Your task to perform on an android device: Open Chrome and go to settings Image 0: 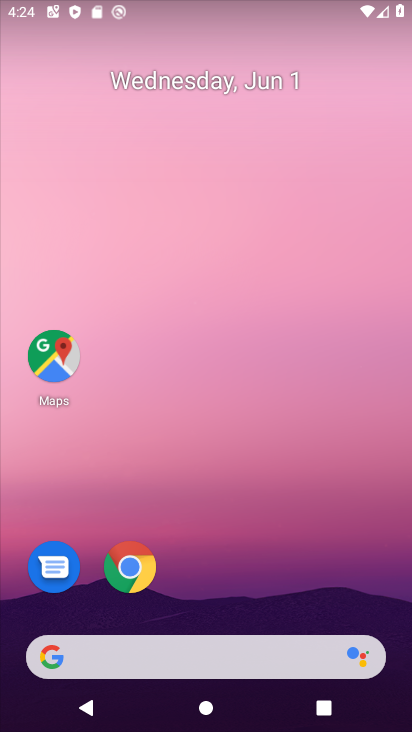
Step 0: press home button
Your task to perform on an android device: Open Chrome and go to settings Image 1: 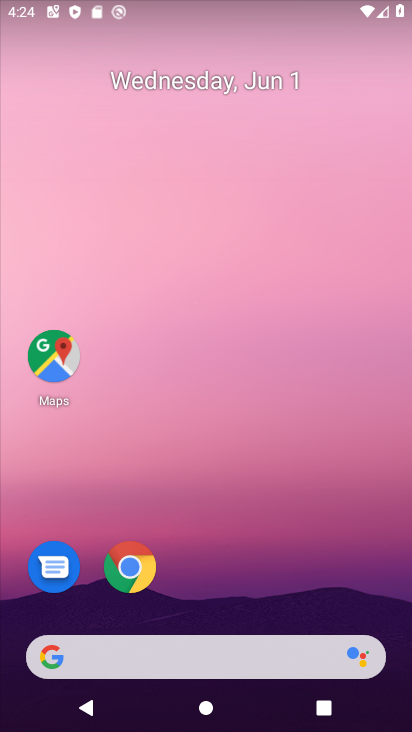
Step 1: click (118, 569)
Your task to perform on an android device: Open Chrome and go to settings Image 2: 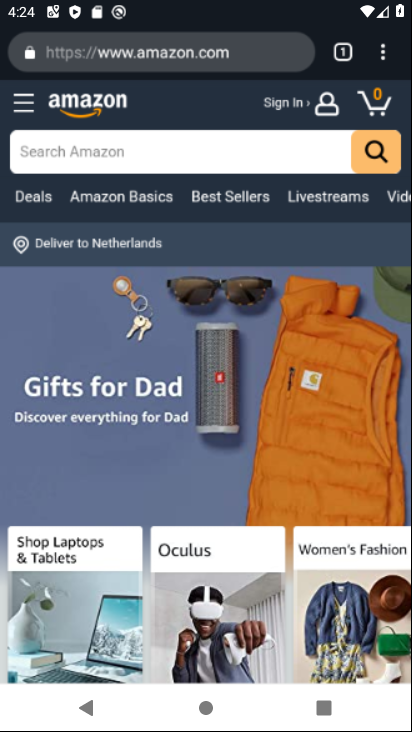
Step 2: click (381, 61)
Your task to perform on an android device: Open Chrome and go to settings Image 3: 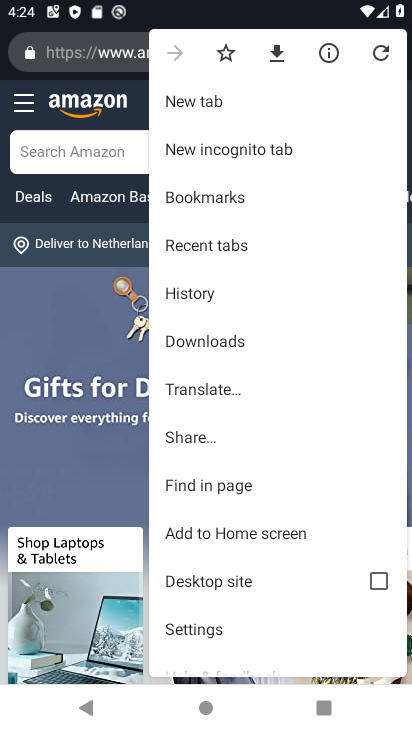
Step 3: click (212, 635)
Your task to perform on an android device: Open Chrome and go to settings Image 4: 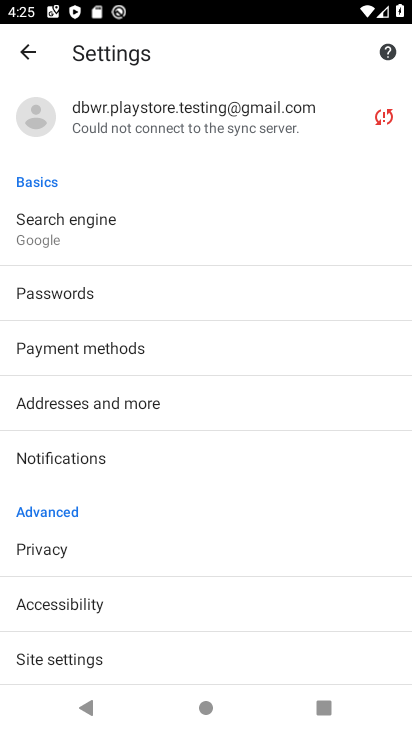
Step 4: task complete